Your task to perform on an android device: What is the news today? Image 0: 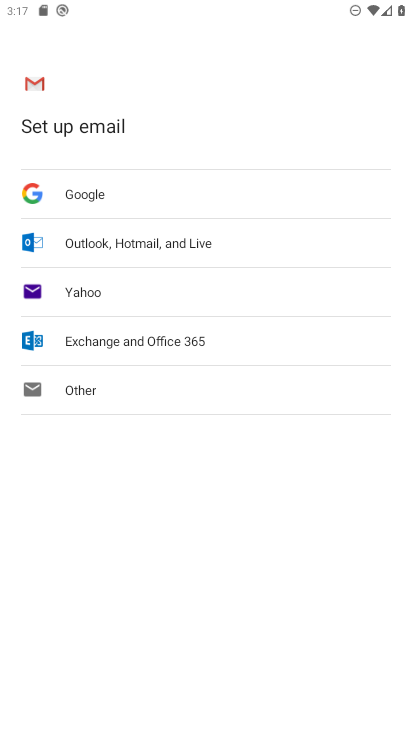
Step 0: press home button
Your task to perform on an android device: What is the news today? Image 1: 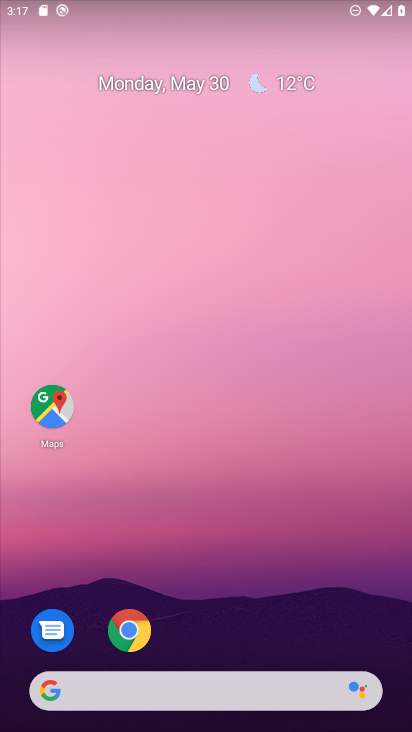
Step 1: task complete